Your task to perform on an android device: turn off smart reply in the gmail app Image 0: 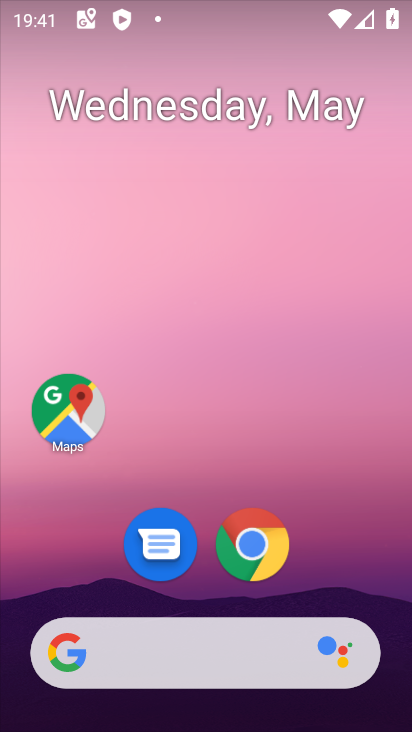
Step 0: drag from (211, 595) to (235, 9)
Your task to perform on an android device: turn off smart reply in the gmail app Image 1: 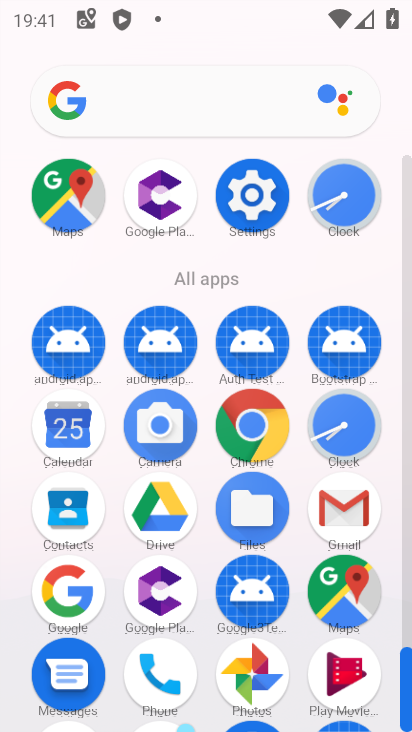
Step 1: click (319, 500)
Your task to perform on an android device: turn off smart reply in the gmail app Image 2: 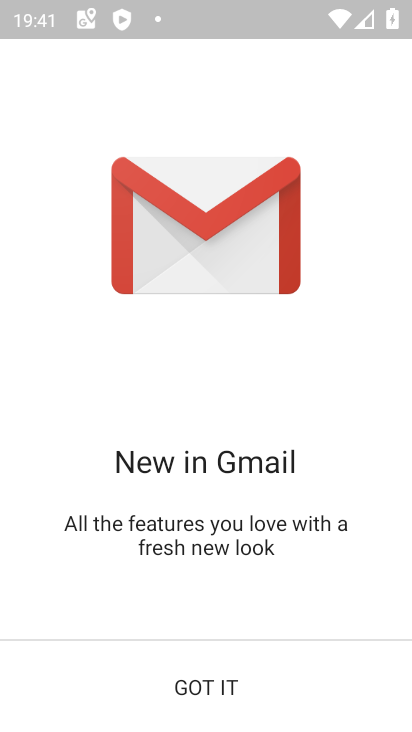
Step 2: click (191, 706)
Your task to perform on an android device: turn off smart reply in the gmail app Image 3: 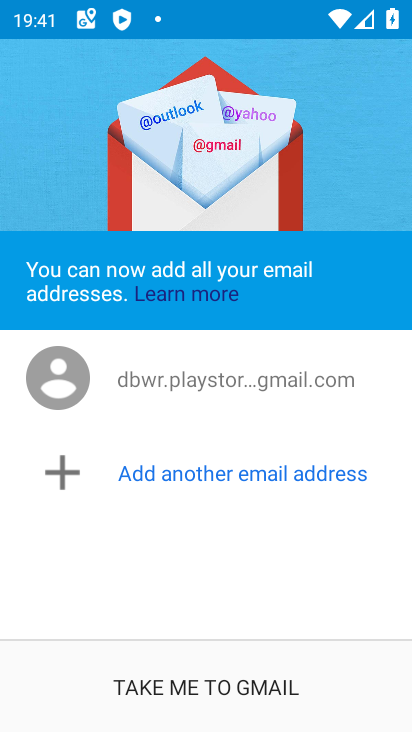
Step 3: click (191, 706)
Your task to perform on an android device: turn off smart reply in the gmail app Image 4: 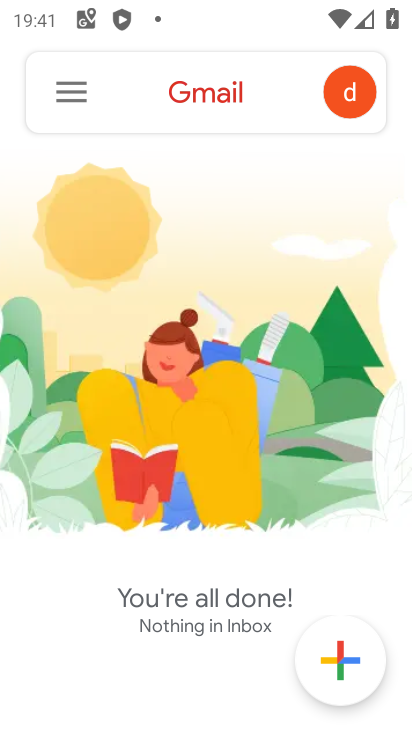
Step 4: click (65, 101)
Your task to perform on an android device: turn off smart reply in the gmail app Image 5: 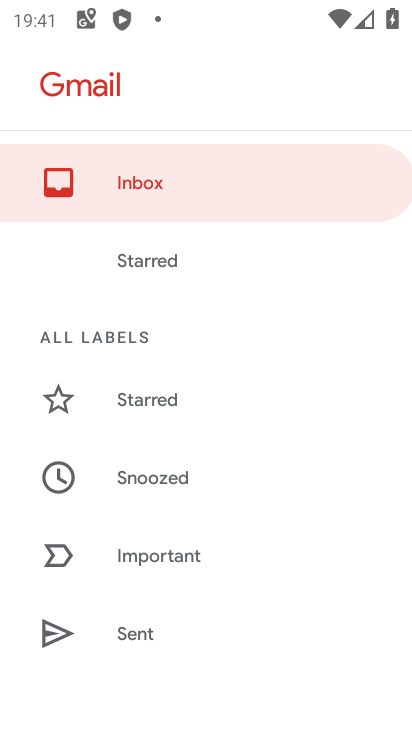
Step 5: drag from (90, 575) to (158, 140)
Your task to perform on an android device: turn off smart reply in the gmail app Image 6: 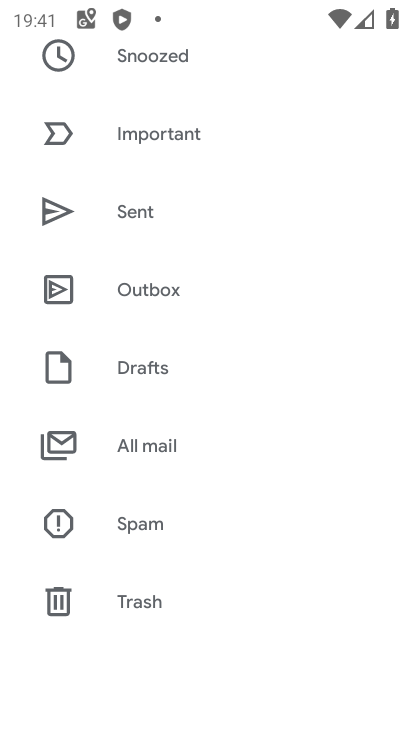
Step 6: drag from (154, 572) to (219, 129)
Your task to perform on an android device: turn off smart reply in the gmail app Image 7: 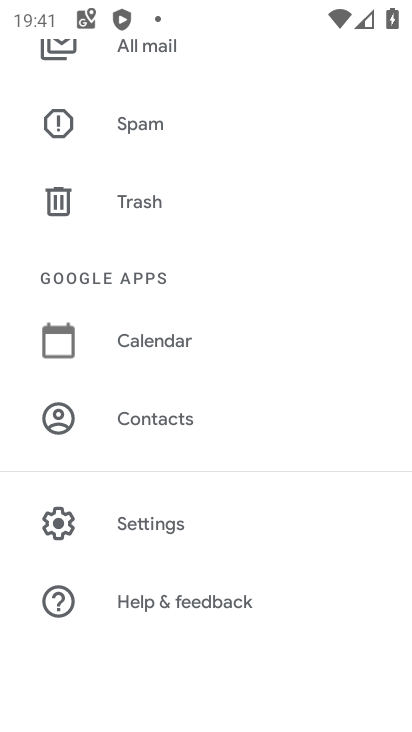
Step 7: click (141, 532)
Your task to perform on an android device: turn off smart reply in the gmail app Image 8: 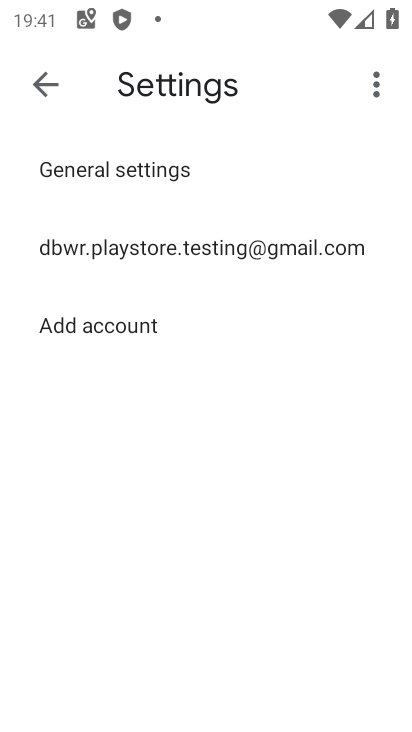
Step 8: click (232, 250)
Your task to perform on an android device: turn off smart reply in the gmail app Image 9: 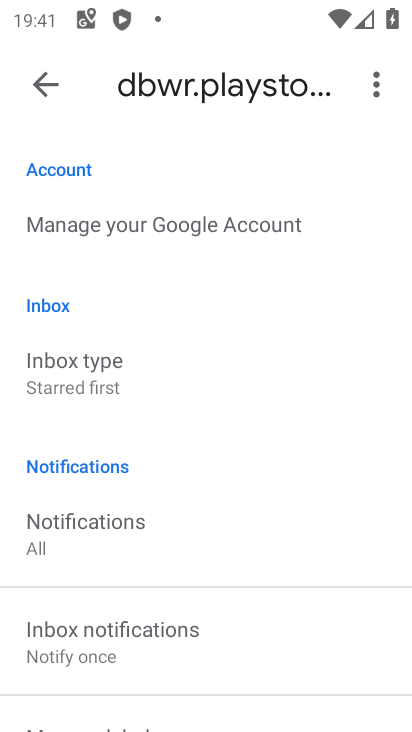
Step 9: drag from (126, 642) to (266, 148)
Your task to perform on an android device: turn off smart reply in the gmail app Image 10: 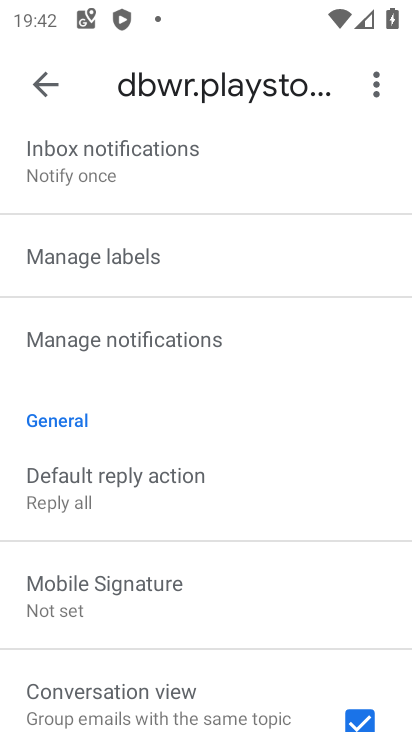
Step 10: drag from (99, 559) to (207, 175)
Your task to perform on an android device: turn off smart reply in the gmail app Image 11: 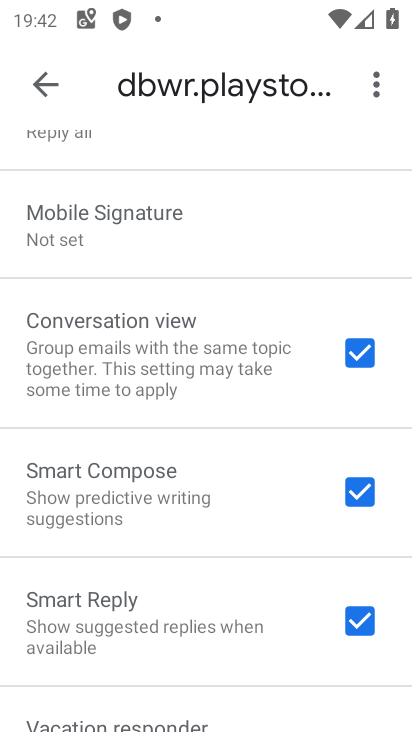
Step 11: click (363, 612)
Your task to perform on an android device: turn off smart reply in the gmail app Image 12: 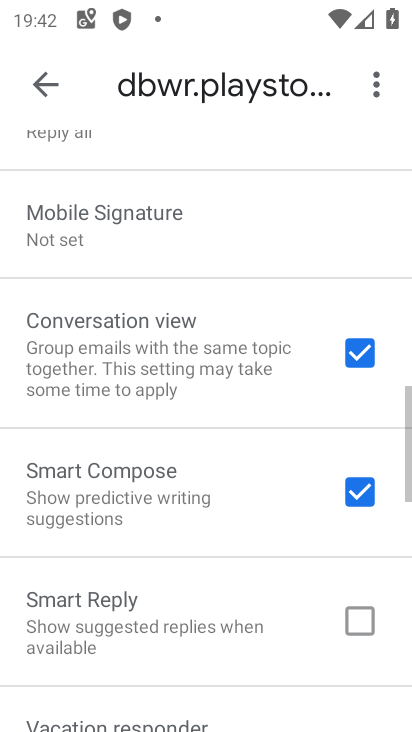
Step 12: task complete